Your task to perform on an android device: Open Yahoo.com Image 0: 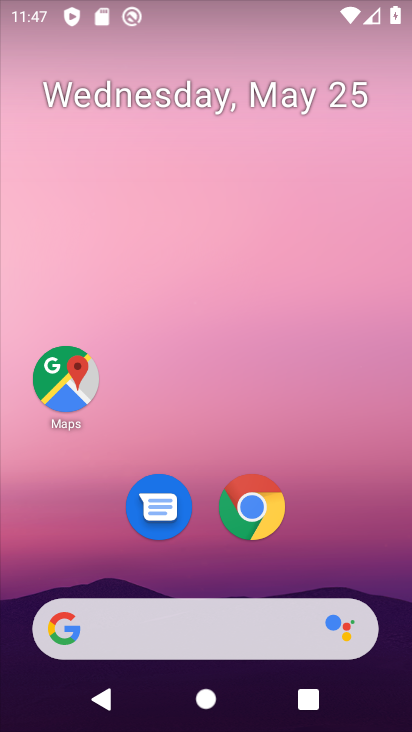
Step 0: click (254, 526)
Your task to perform on an android device: Open Yahoo.com Image 1: 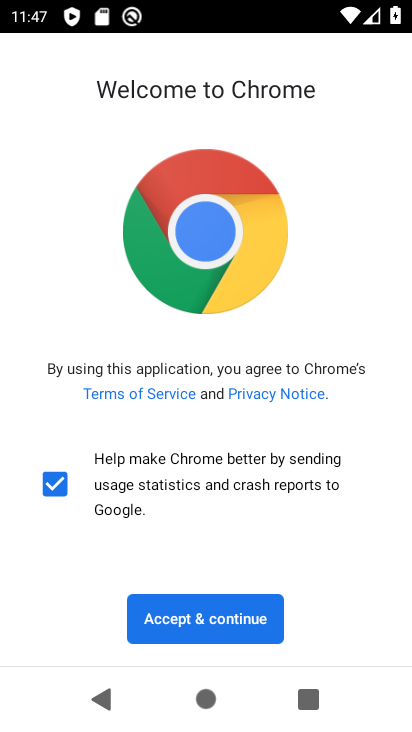
Step 1: click (211, 605)
Your task to perform on an android device: Open Yahoo.com Image 2: 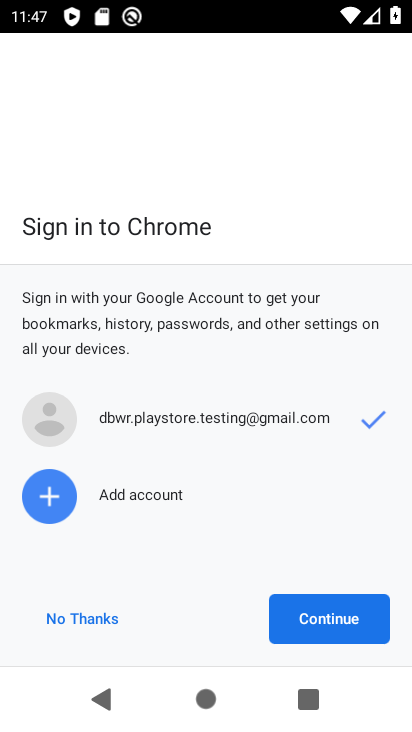
Step 2: click (361, 619)
Your task to perform on an android device: Open Yahoo.com Image 3: 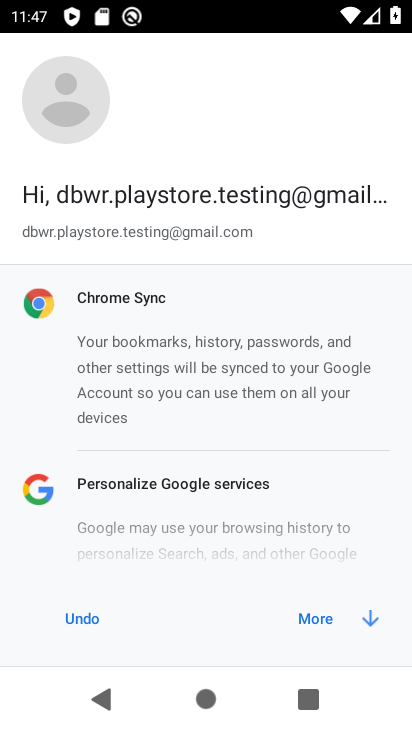
Step 3: click (310, 623)
Your task to perform on an android device: Open Yahoo.com Image 4: 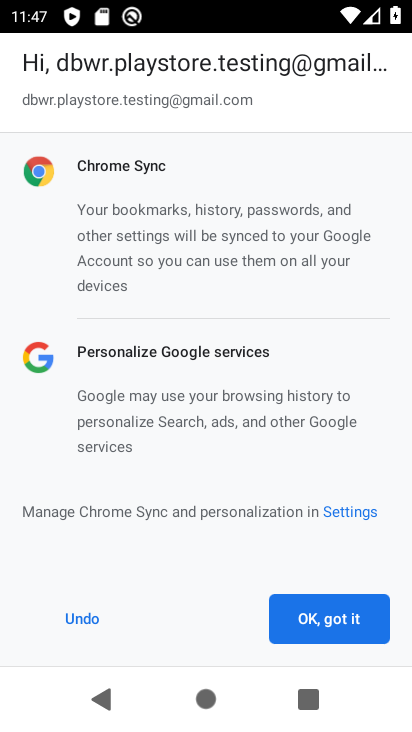
Step 4: click (310, 623)
Your task to perform on an android device: Open Yahoo.com Image 5: 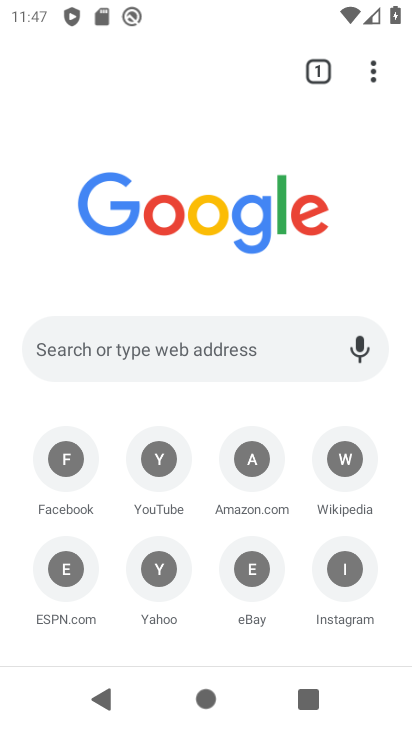
Step 5: click (167, 85)
Your task to perform on an android device: Open Yahoo.com Image 6: 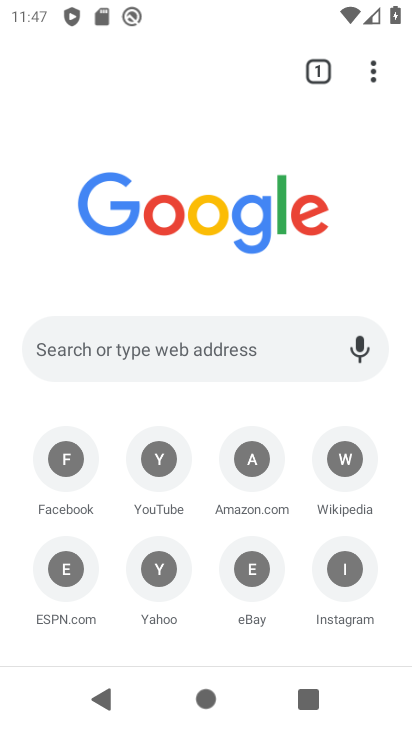
Step 6: click (195, 356)
Your task to perform on an android device: Open Yahoo.com Image 7: 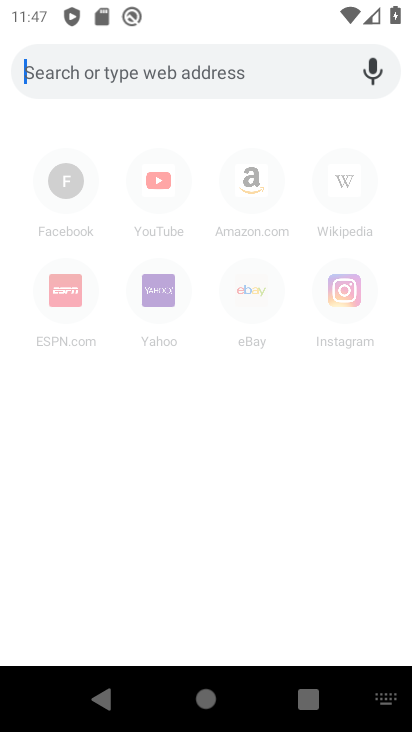
Step 7: click (162, 305)
Your task to perform on an android device: Open Yahoo.com Image 8: 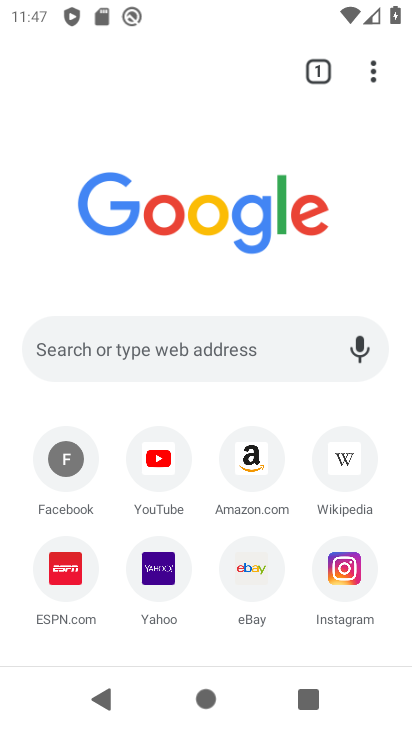
Step 8: click (170, 557)
Your task to perform on an android device: Open Yahoo.com Image 9: 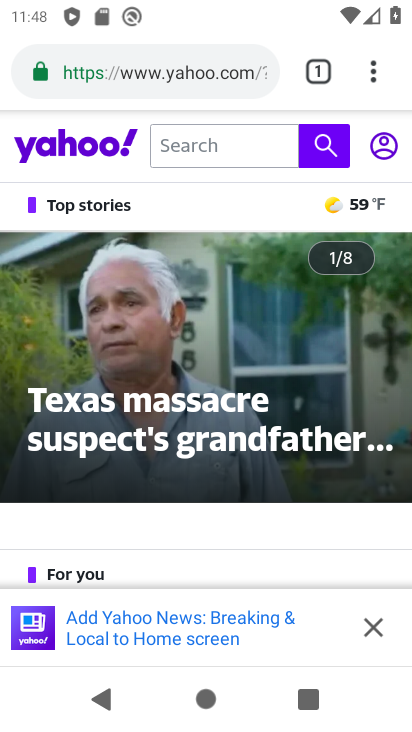
Step 9: task complete